Your task to perform on an android device: toggle show notifications on the lock screen Image 0: 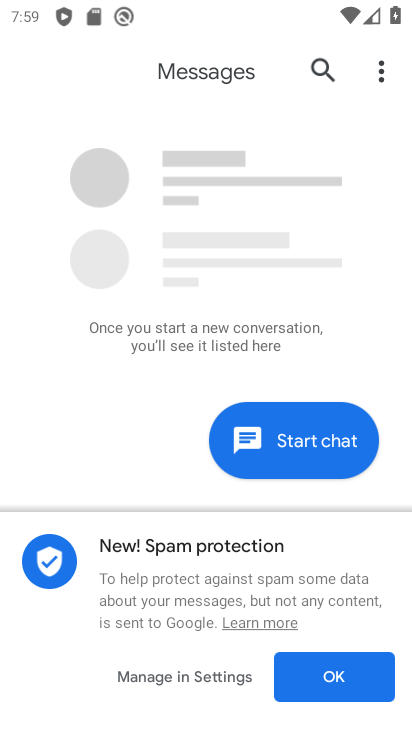
Step 0: press home button
Your task to perform on an android device: toggle show notifications on the lock screen Image 1: 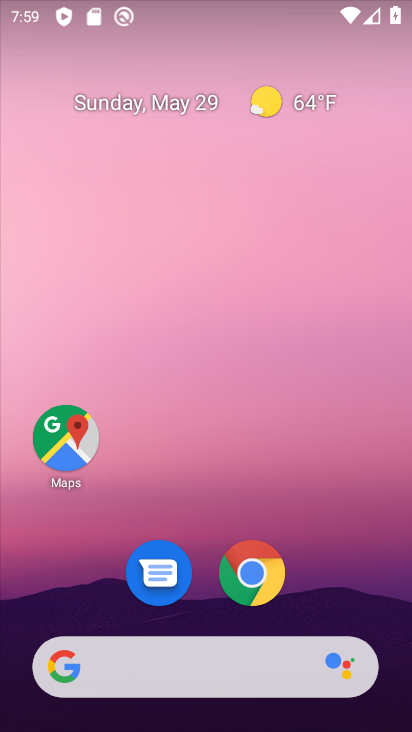
Step 1: click (398, 544)
Your task to perform on an android device: toggle show notifications on the lock screen Image 2: 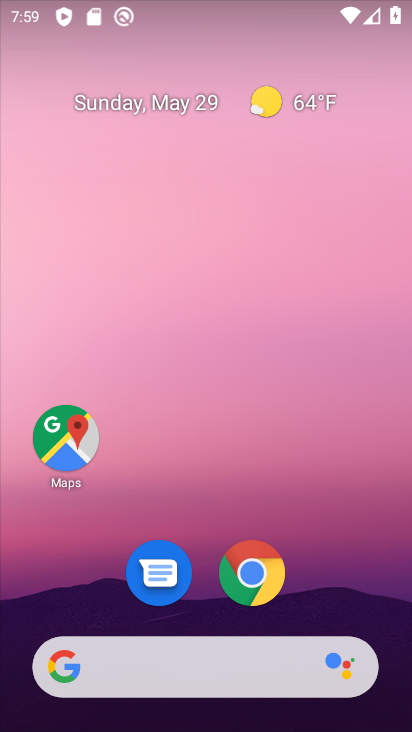
Step 2: drag from (70, 624) to (256, 20)
Your task to perform on an android device: toggle show notifications on the lock screen Image 3: 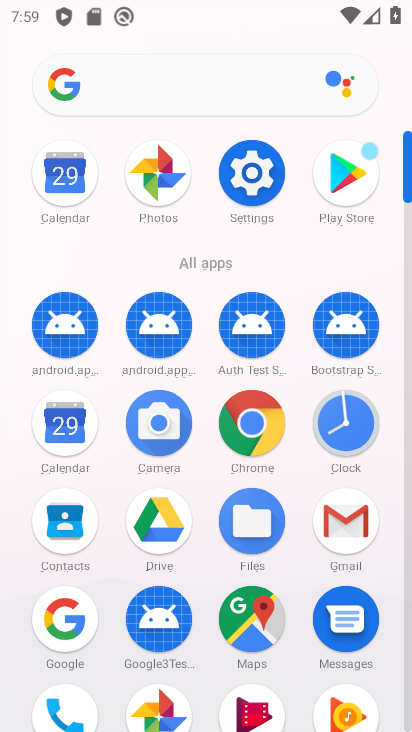
Step 3: drag from (178, 482) to (279, 135)
Your task to perform on an android device: toggle show notifications on the lock screen Image 4: 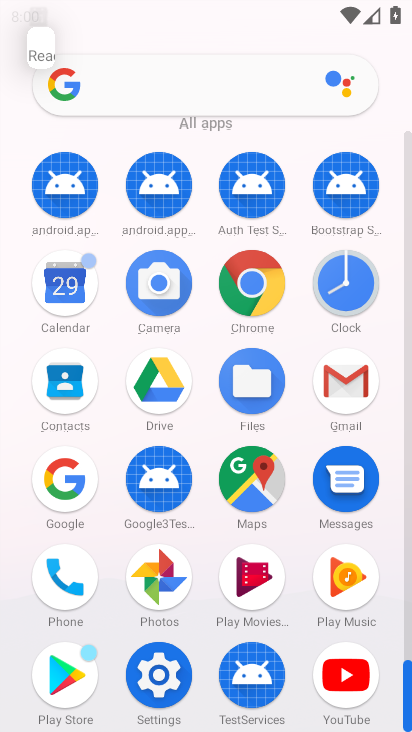
Step 4: click (158, 688)
Your task to perform on an android device: toggle show notifications on the lock screen Image 5: 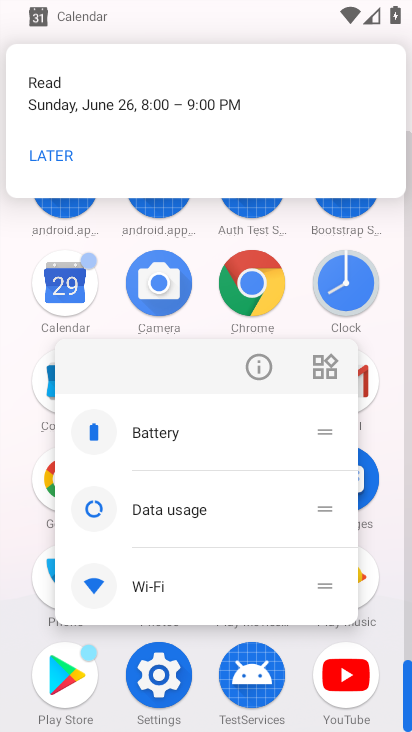
Step 5: click (168, 673)
Your task to perform on an android device: toggle show notifications on the lock screen Image 6: 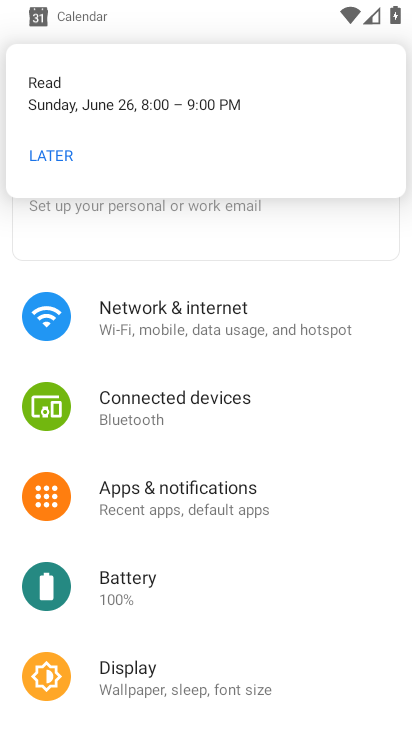
Step 6: drag from (199, 661) to (287, 389)
Your task to perform on an android device: toggle show notifications on the lock screen Image 7: 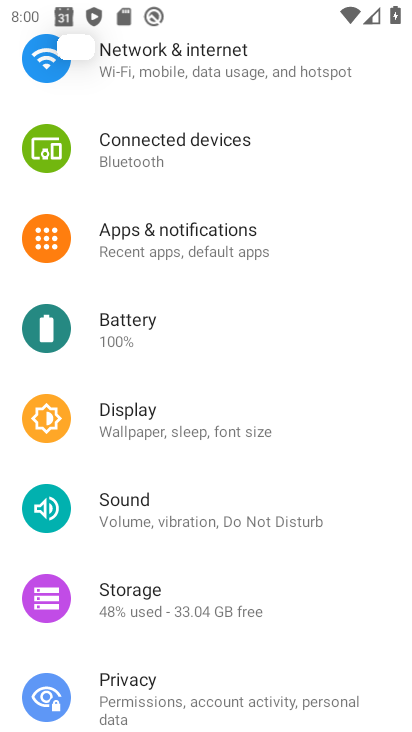
Step 7: drag from (286, 391) to (274, 575)
Your task to perform on an android device: toggle show notifications on the lock screen Image 8: 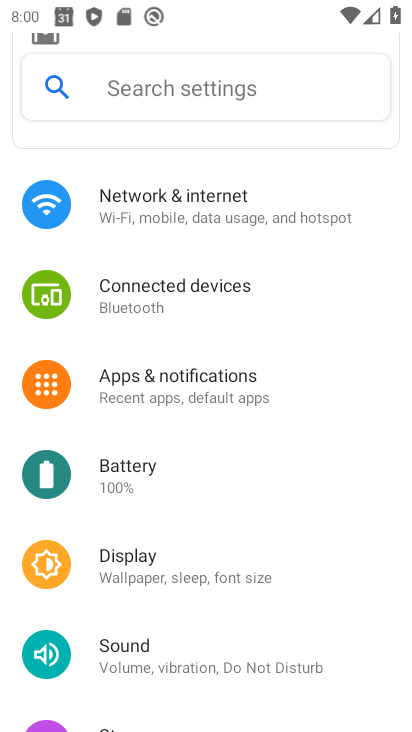
Step 8: click (277, 408)
Your task to perform on an android device: toggle show notifications on the lock screen Image 9: 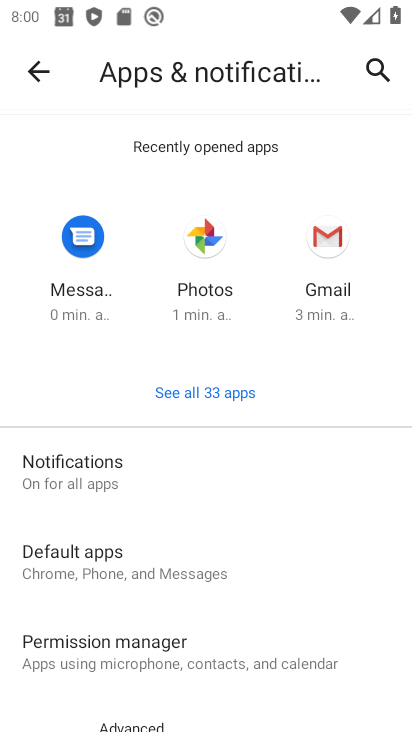
Step 9: click (247, 480)
Your task to perform on an android device: toggle show notifications on the lock screen Image 10: 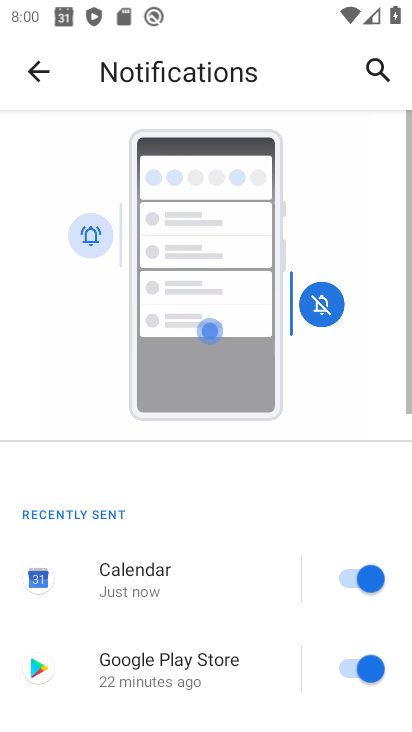
Step 10: drag from (138, 601) to (299, 196)
Your task to perform on an android device: toggle show notifications on the lock screen Image 11: 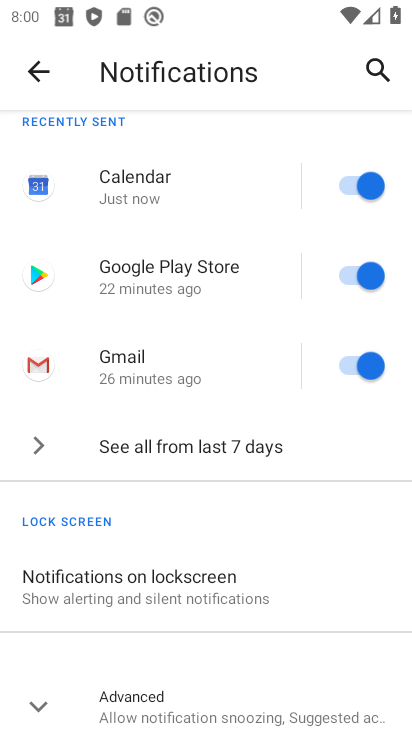
Step 11: click (233, 596)
Your task to perform on an android device: toggle show notifications on the lock screen Image 12: 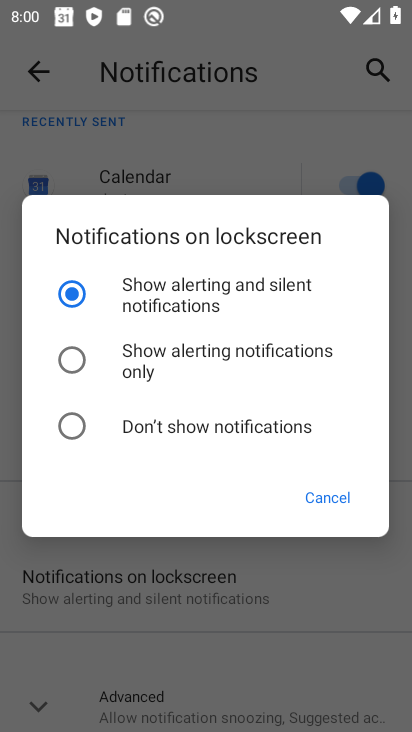
Step 12: click (206, 425)
Your task to perform on an android device: toggle show notifications on the lock screen Image 13: 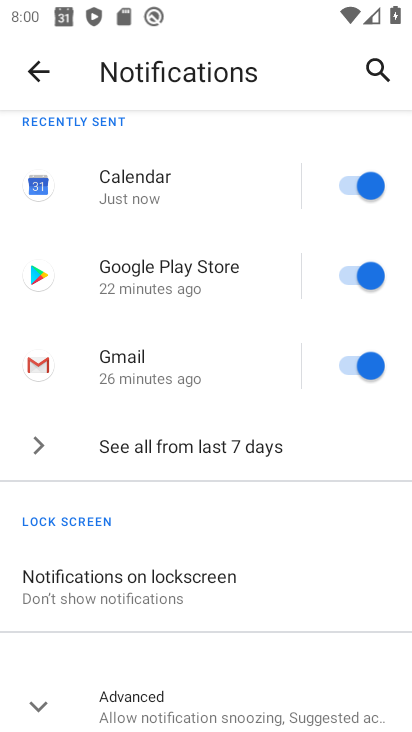
Step 13: task complete